Your task to perform on an android device: Open the Play Movies app and select the watchlist tab. Image 0: 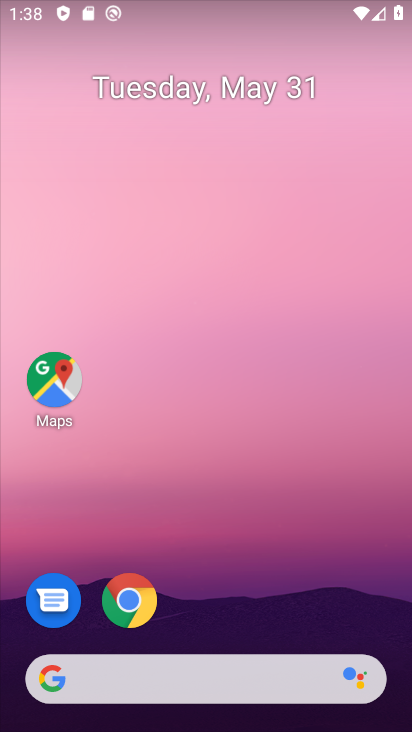
Step 0: click (126, 590)
Your task to perform on an android device: Open the Play Movies app and select the watchlist tab. Image 1: 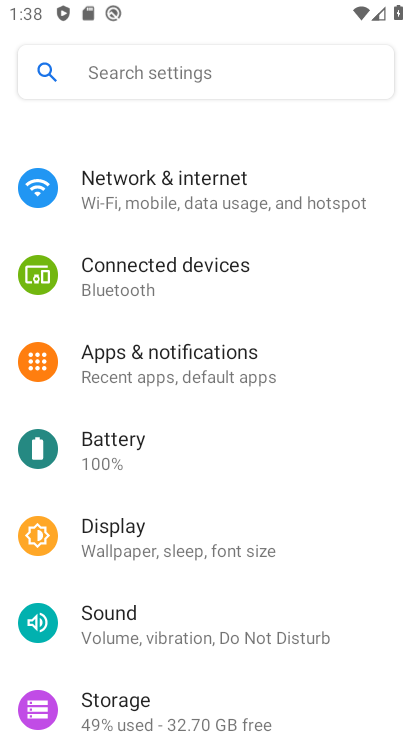
Step 1: press home button
Your task to perform on an android device: Open the Play Movies app and select the watchlist tab. Image 2: 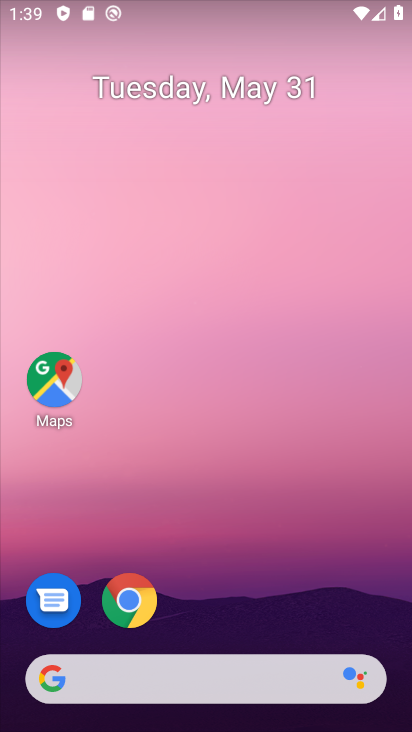
Step 2: drag from (205, 614) to (239, 134)
Your task to perform on an android device: Open the Play Movies app and select the watchlist tab. Image 3: 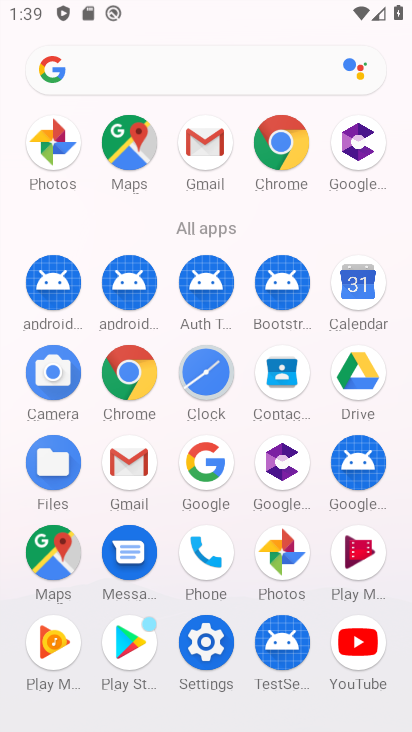
Step 3: click (352, 541)
Your task to perform on an android device: Open the Play Movies app and select the watchlist tab. Image 4: 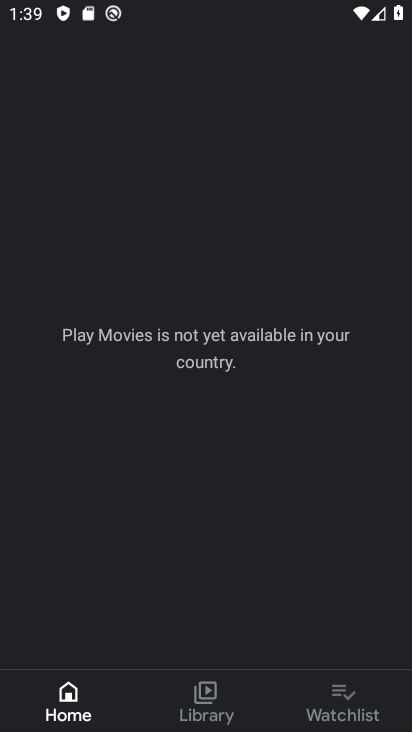
Step 4: click (335, 700)
Your task to perform on an android device: Open the Play Movies app and select the watchlist tab. Image 5: 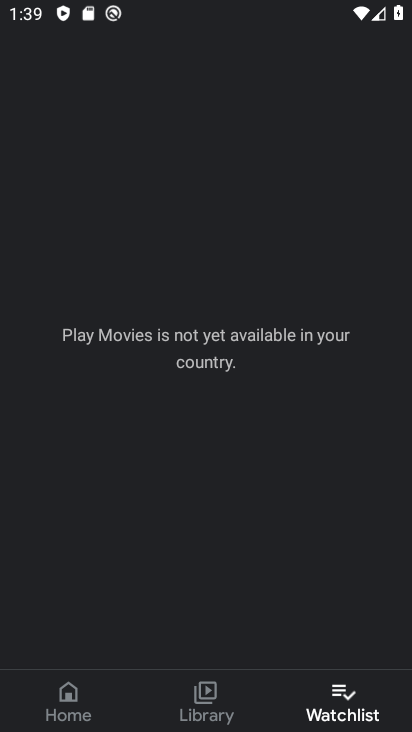
Step 5: task complete